Your task to perform on an android device: Go to notification settings Image 0: 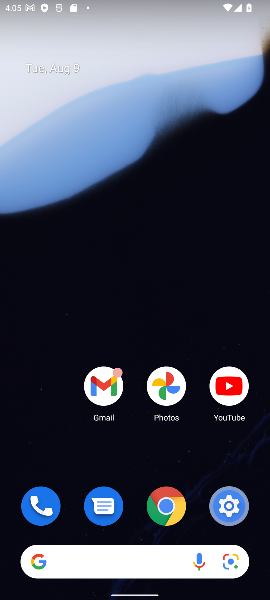
Step 0: drag from (137, 528) to (183, 65)
Your task to perform on an android device: Go to notification settings Image 1: 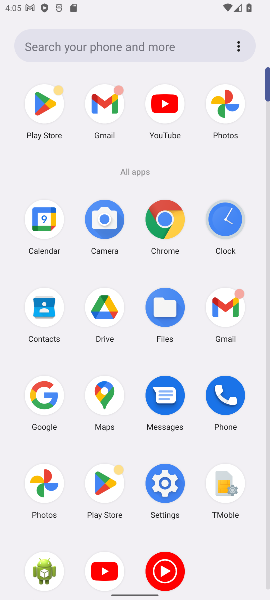
Step 1: click (155, 476)
Your task to perform on an android device: Go to notification settings Image 2: 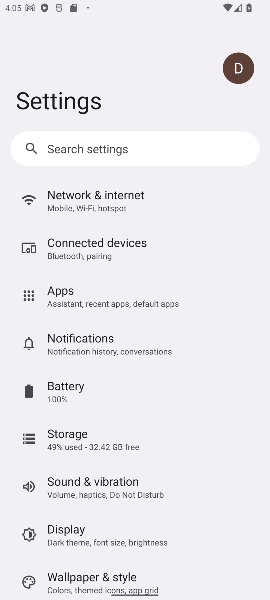
Step 2: click (105, 353)
Your task to perform on an android device: Go to notification settings Image 3: 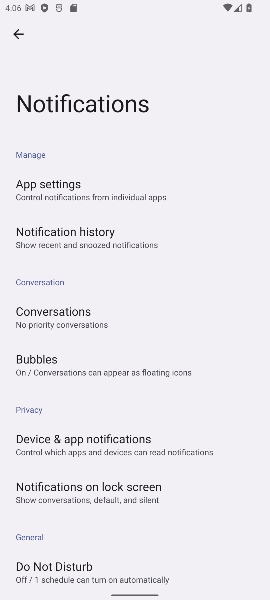
Step 3: task complete